Your task to perform on an android device: visit the assistant section in the google photos Image 0: 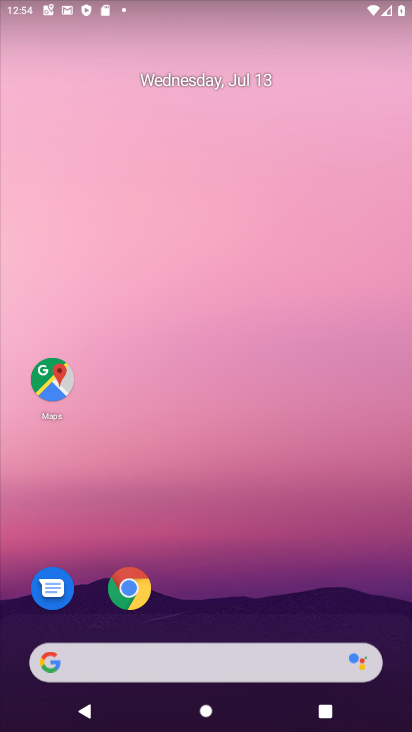
Step 0: press home button
Your task to perform on an android device: visit the assistant section in the google photos Image 1: 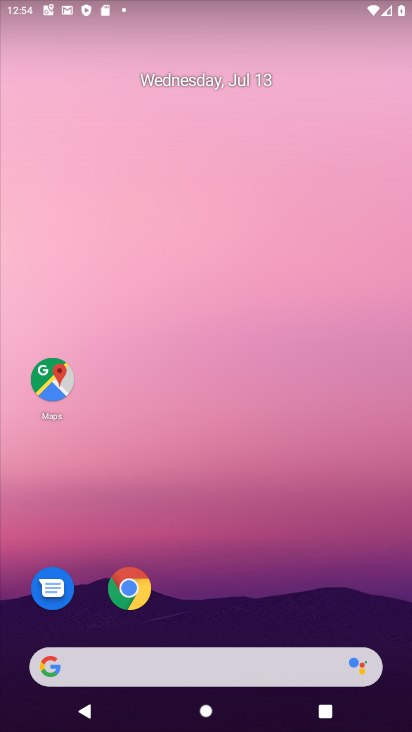
Step 1: click (220, 283)
Your task to perform on an android device: visit the assistant section in the google photos Image 2: 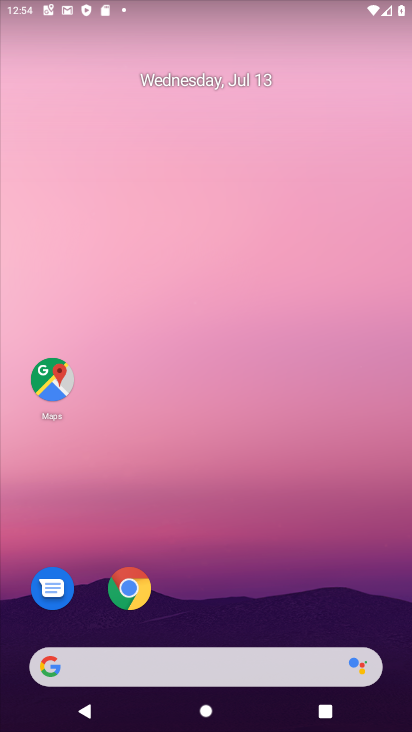
Step 2: drag from (200, 643) to (243, 124)
Your task to perform on an android device: visit the assistant section in the google photos Image 3: 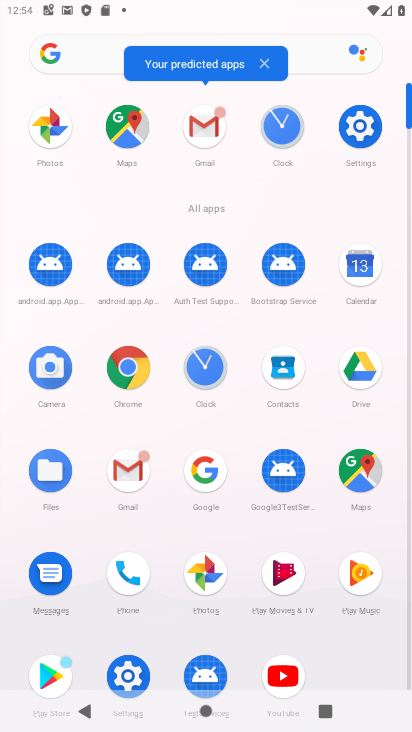
Step 3: click (206, 576)
Your task to perform on an android device: visit the assistant section in the google photos Image 4: 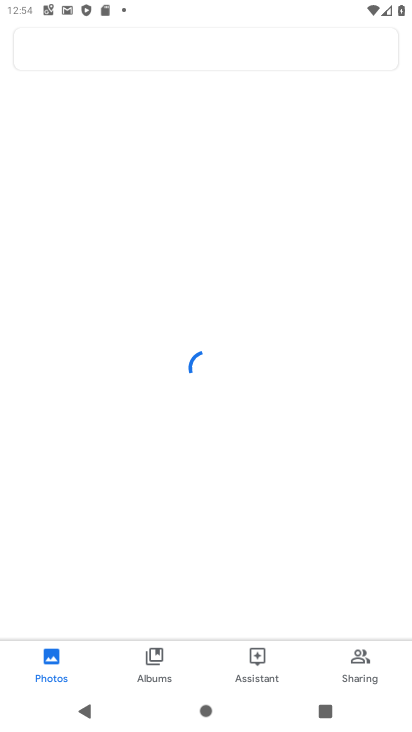
Step 4: click (260, 655)
Your task to perform on an android device: visit the assistant section in the google photos Image 5: 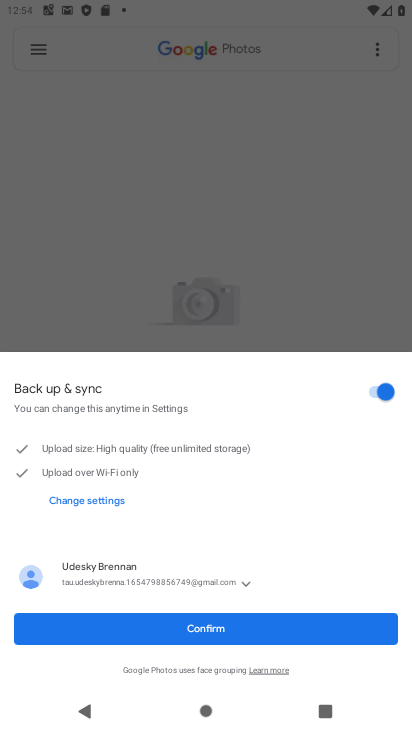
Step 5: click (217, 635)
Your task to perform on an android device: visit the assistant section in the google photos Image 6: 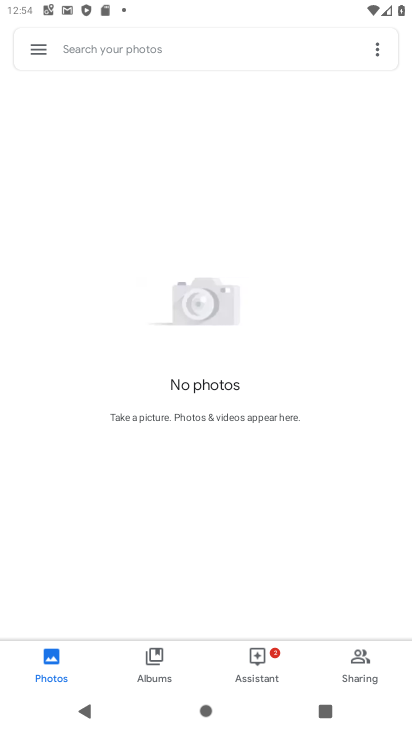
Step 6: click (254, 656)
Your task to perform on an android device: visit the assistant section in the google photos Image 7: 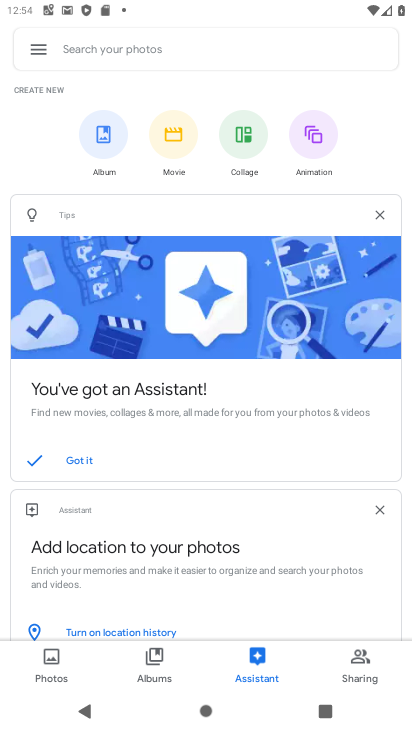
Step 7: task complete